Your task to perform on an android device: toggle sleep mode Image 0: 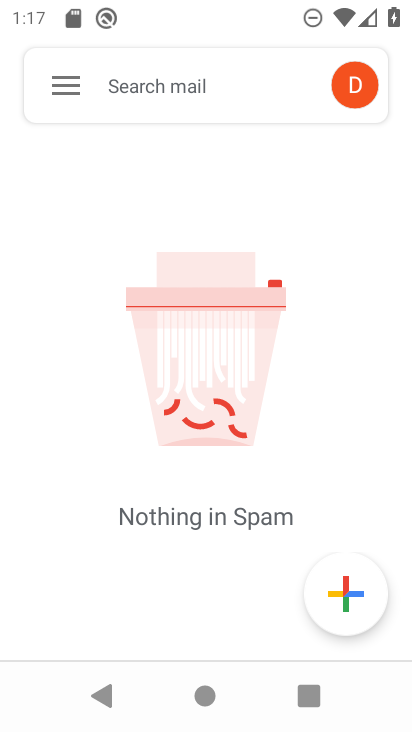
Step 0: press home button
Your task to perform on an android device: toggle sleep mode Image 1: 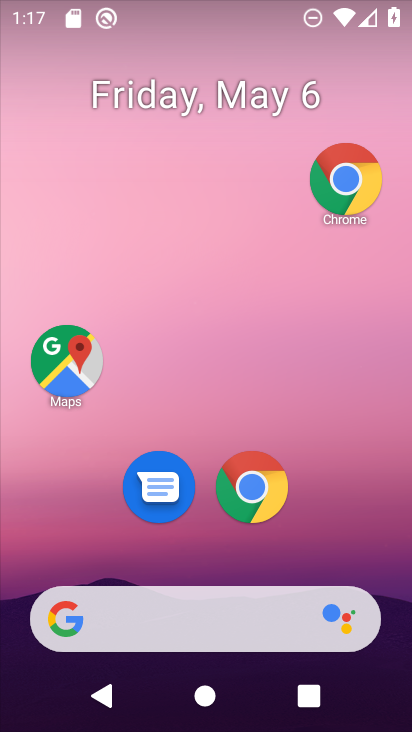
Step 1: drag from (347, 553) to (345, 93)
Your task to perform on an android device: toggle sleep mode Image 2: 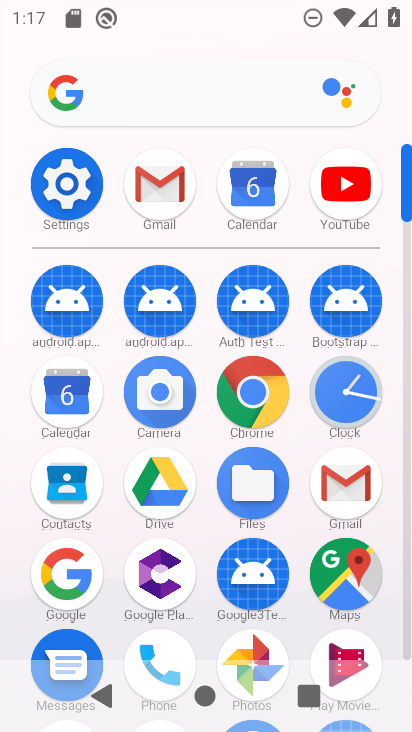
Step 2: click (84, 213)
Your task to perform on an android device: toggle sleep mode Image 3: 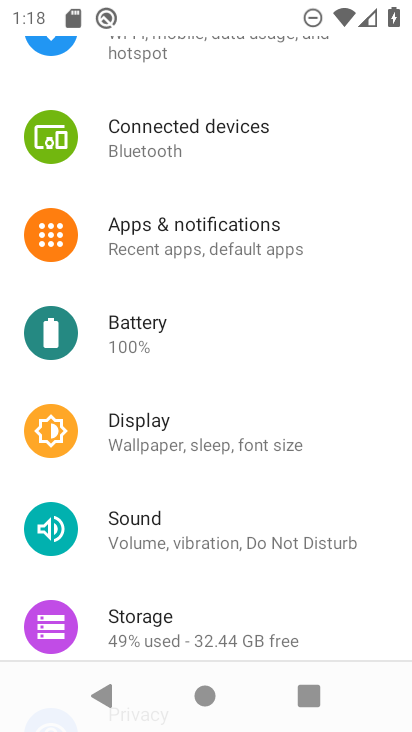
Step 3: click (253, 432)
Your task to perform on an android device: toggle sleep mode Image 4: 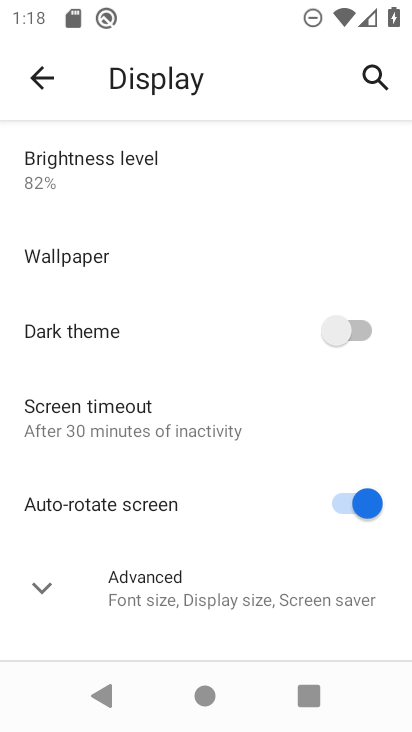
Step 4: click (163, 418)
Your task to perform on an android device: toggle sleep mode Image 5: 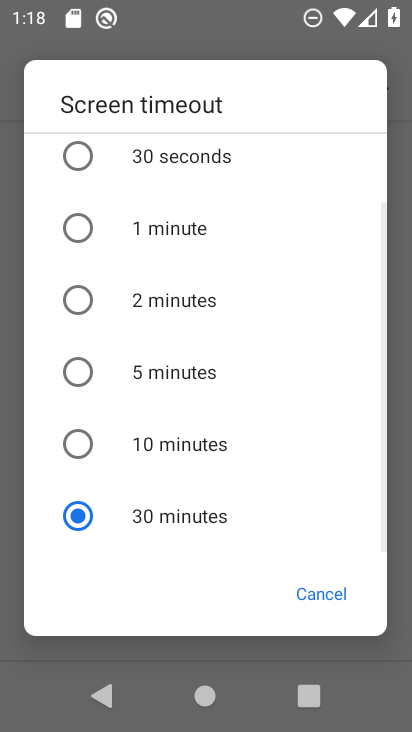
Step 5: click (251, 162)
Your task to perform on an android device: toggle sleep mode Image 6: 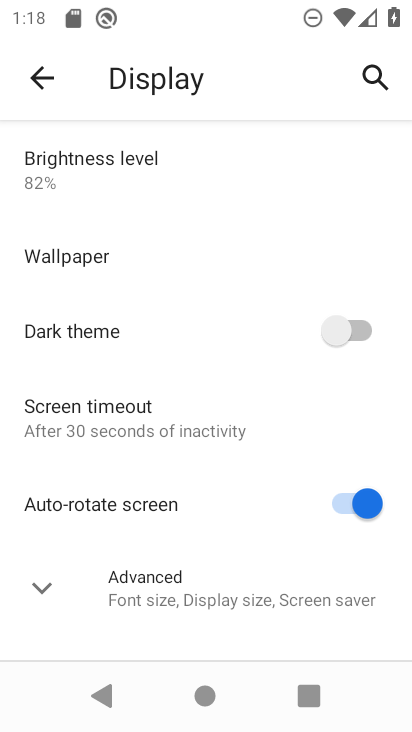
Step 6: task complete